Your task to perform on an android device: Search for the best 4K TV Image 0: 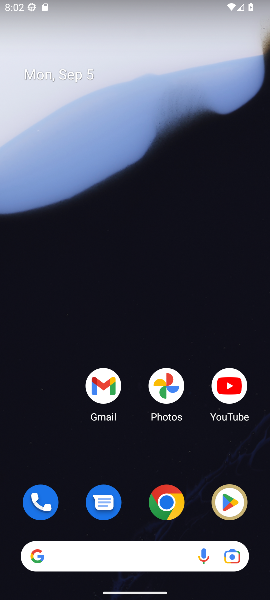
Step 0: press home button
Your task to perform on an android device: Search for the best 4K TV Image 1: 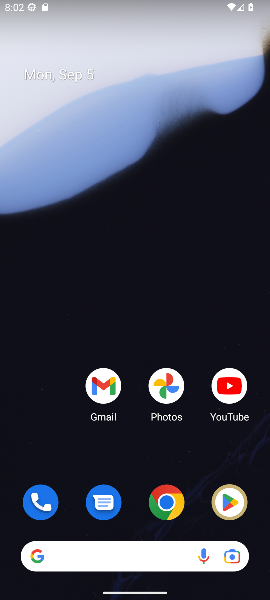
Step 1: drag from (217, 477) to (49, 355)
Your task to perform on an android device: Search for the best 4K TV Image 2: 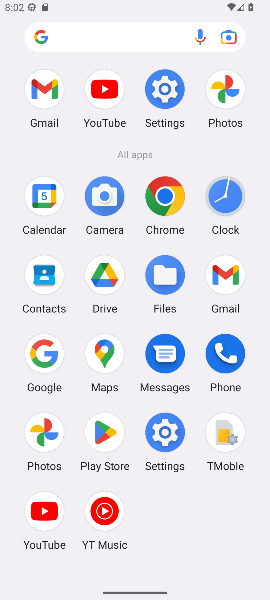
Step 2: click (42, 354)
Your task to perform on an android device: Search for the best 4K TV Image 3: 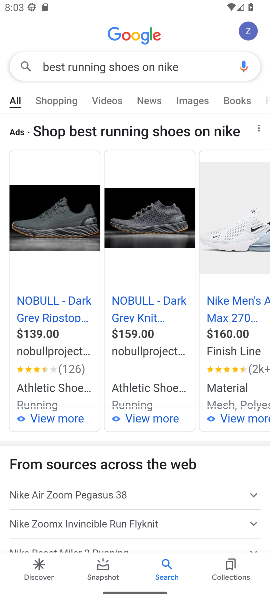
Step 3: press back button
Your task to perform on an android device: Search for the best 4K TV Image 4: 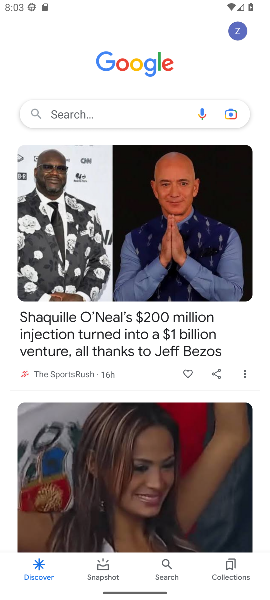
Step 4: click (83, 110)
Your task to perform on an android device: Search for the best 4K TV Image 5: 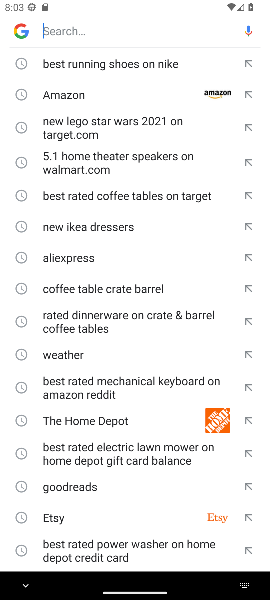
Step 5: type "best 4K TV"
Your task to perform on an android device: Search for the best 4K TV Image 6: 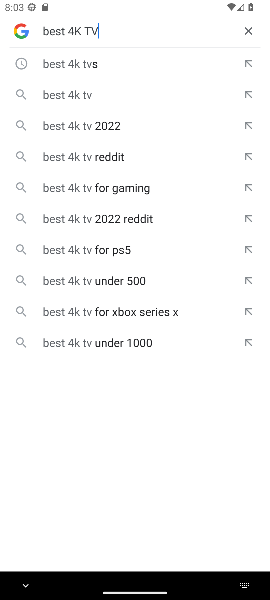
Step 6: click (84, 63)
Your task to perform on an android device: Search for the best 4K TV Image 7: 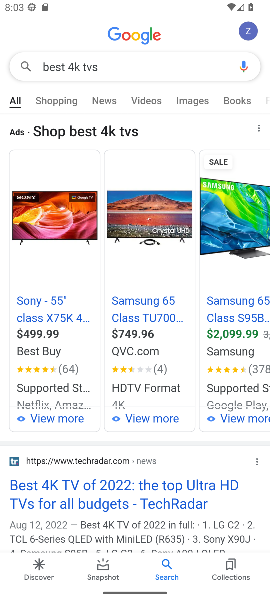
Step 7: task complete